Your task to perform on an android device: Open sound settings Image 0: 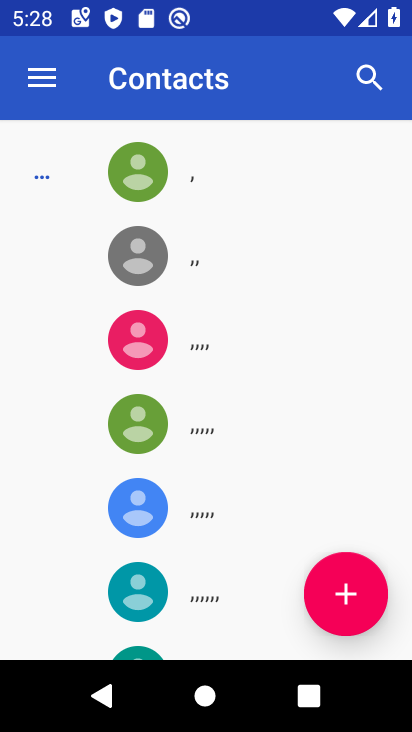
Step 0: press home button
Your task to perform on an android device: Open sound settings Image 1: 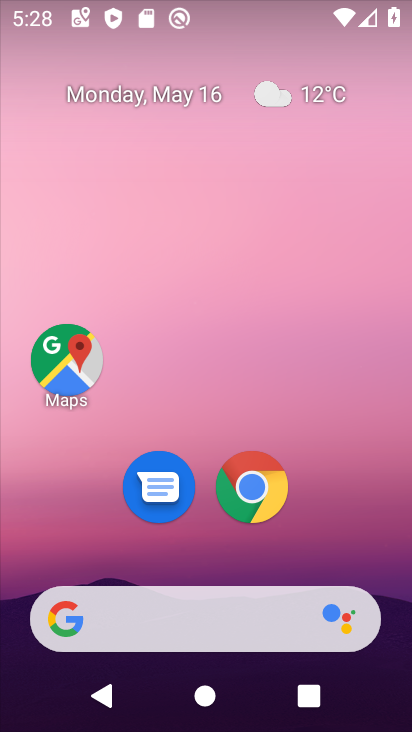
Step 1: drag from (347, 528) to (274, 108)
Your task to perform on an android device: Open sound settings Image 2: 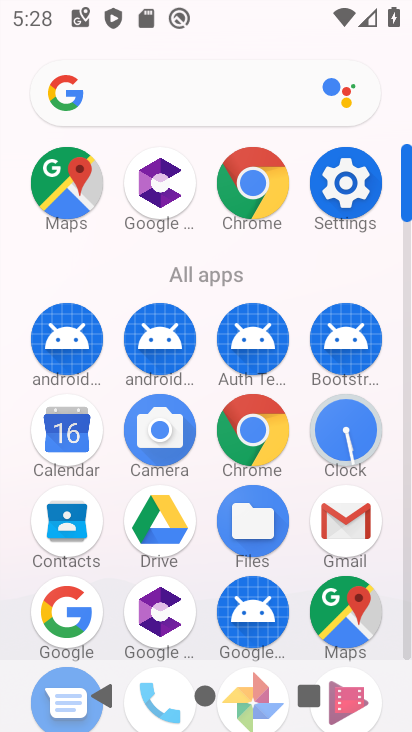
Step 2: click (348, 163)
Your task to perform on an android device: Open sound settings Image 3: 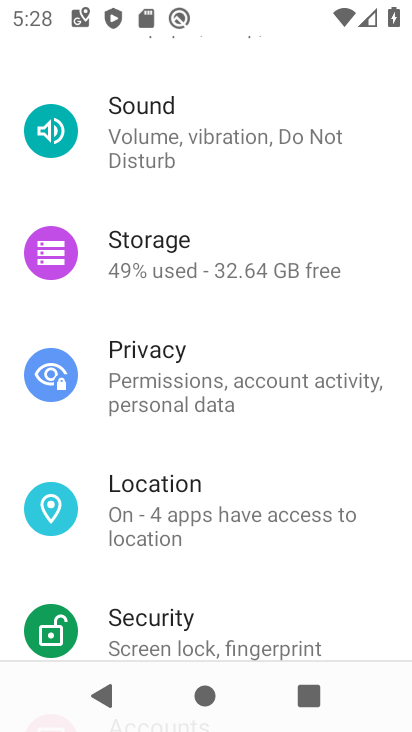
Step 3: drag from (265, 558) to (294, 615)
Your task to perform on an android device: Open sound settings Image 4: 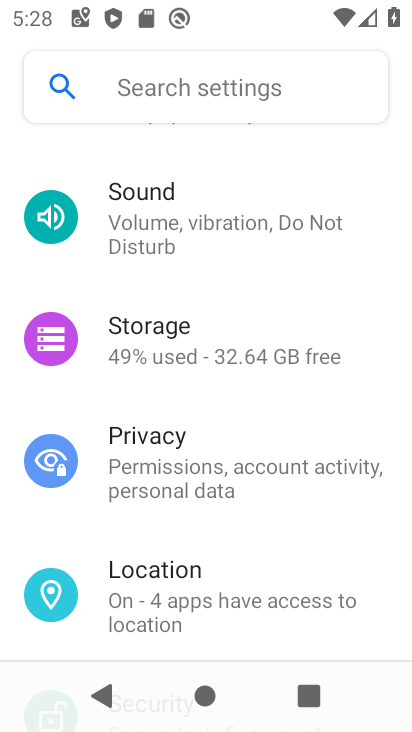
Step 4: click (225, 235)
Your task to perform on an android device: Open sound settings Image 5: 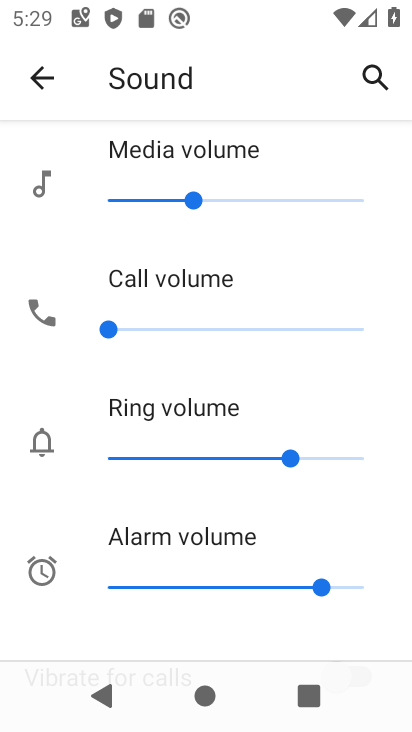
Step 5: task complete